Your task to perform on an android device: Open Youtube and go to the subscriptions tab Image 0: 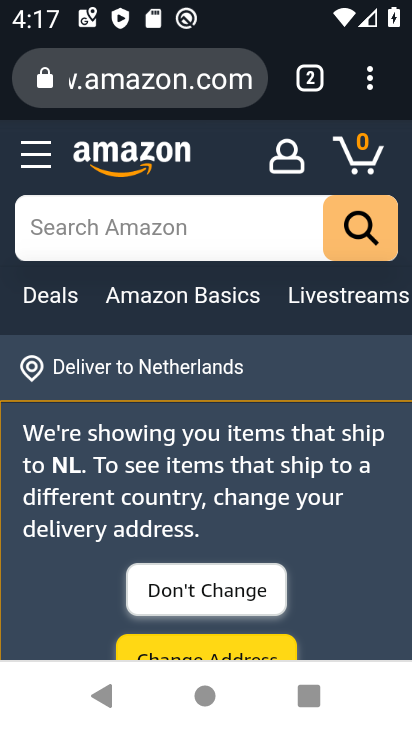
Step 0: press back button
Your task to perform on an android device: Open Youtube and go to the subscriptions tab Image 1: 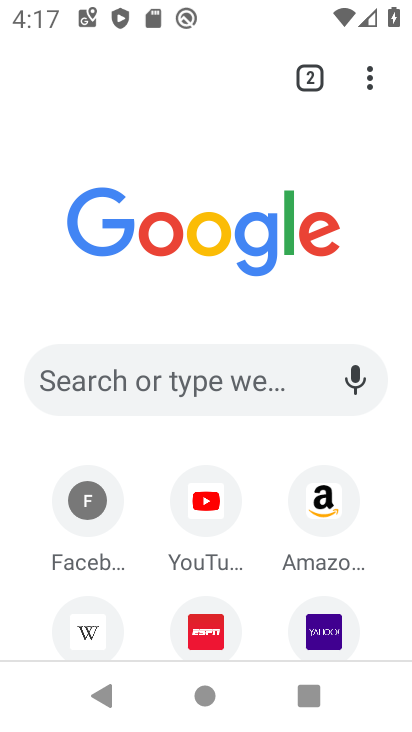
Step 1: press back button
Your task to perform on an android device: Open Youtube and go to the subscriptions tab Image 2: 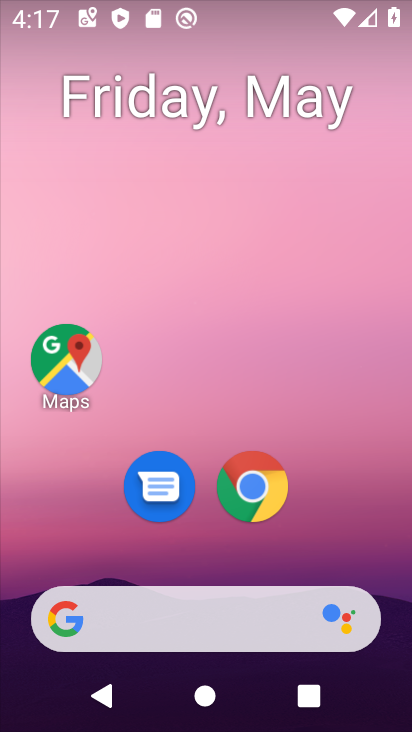
Step 2: drag from (340, 530) to (299, 58)
Your task to perform on an android device: Open Youtube and go to the subscriptions tab Image 3: 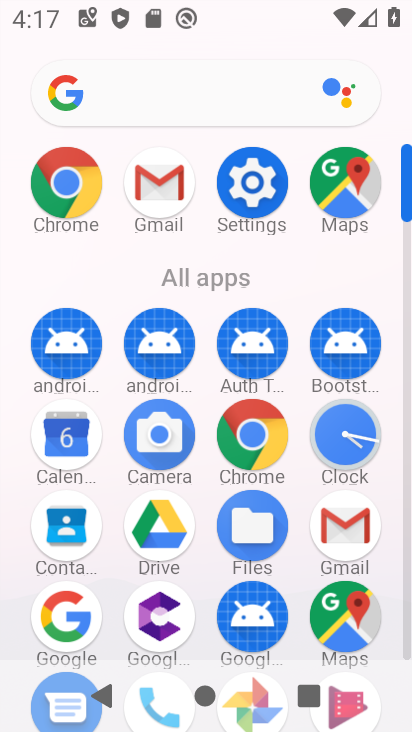
Step 3: drag from (10, 587) to (10, 223)
Your task to perform on an android device: Open Youtube and go to the subscriptions tab Image 4: 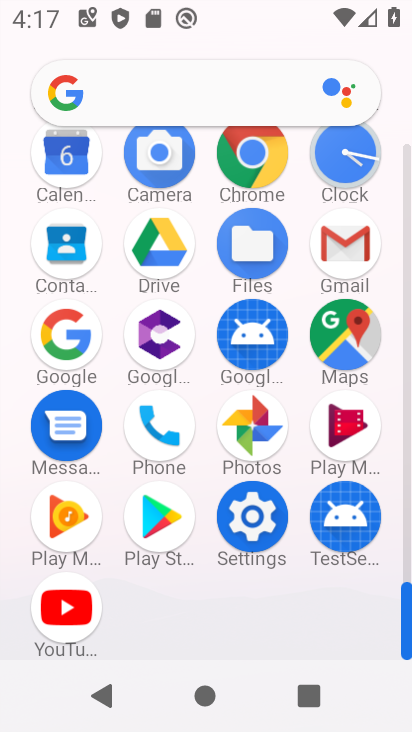
Step 4: click (61, 605)
Your task to perform on an android device: Open Youtube and go to the subscriptions tab Image 5: 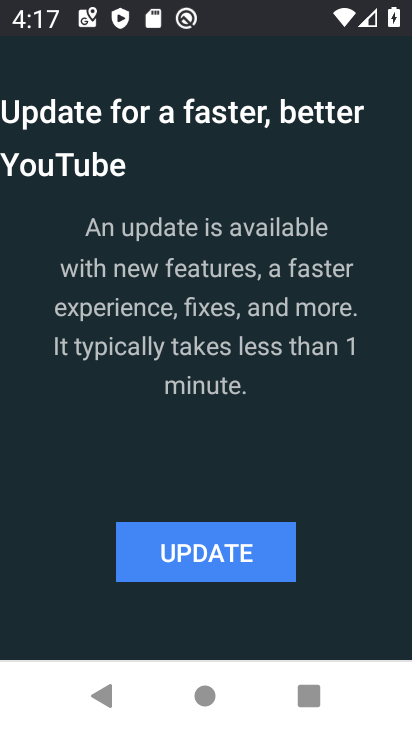
Step 5: click (207, 560)
Your task to perform on an android device: Open Youtube and go to the subscriptions tab Image 6: 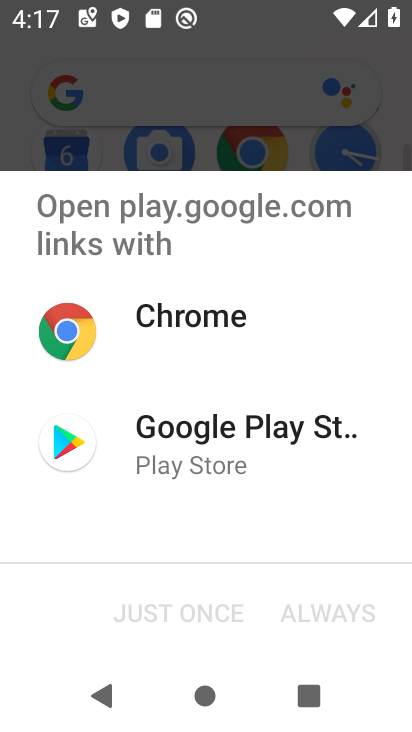
Step 6: click (202, 433)
Your task to perform on an android device: Open Youtube and go to the subscriptions tab Image 7: 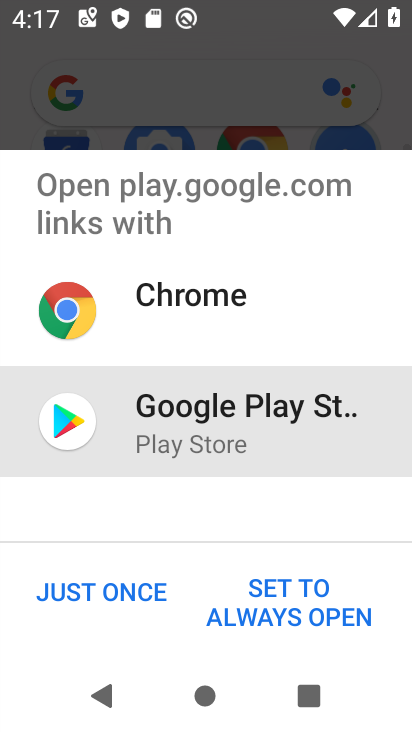
Step 7: click (83, 597)
Your task to perform on an android device: Open Youtube and go to the subscriptions tab Image 8: 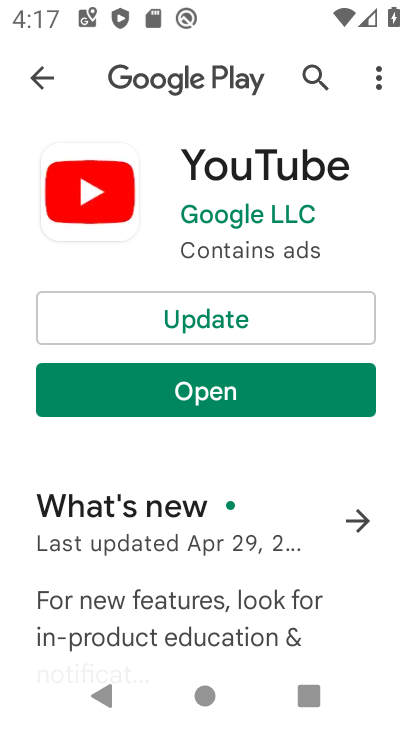
Step 8: click (181, 324)
Your task to perform on an android device: Open Youtube and go to the subscriptions tab Image 9: 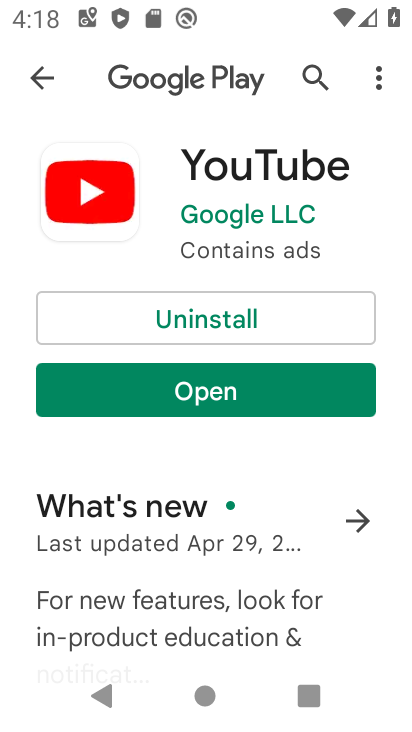
Step 9: click (194, 398)
Your task to perform on an android device: Open Youtube and go to the subscriptions tab Image 10: 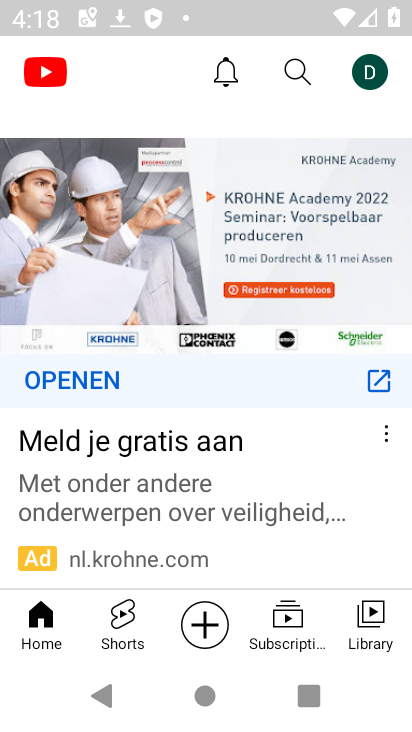
Step 10: click (285, 635)
Your task to perform on an android device: Open Youtube and go to the subscriptions tab Image 11: 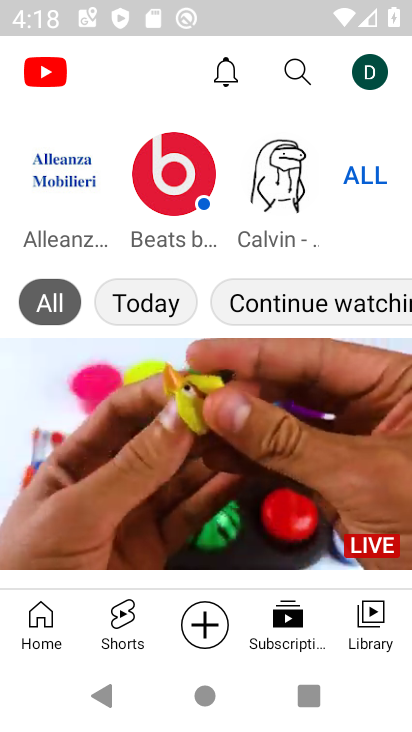
Step 11: task complete